Your task to perform on an android device: What's the news about the US dollar exchange rate? Image 0: 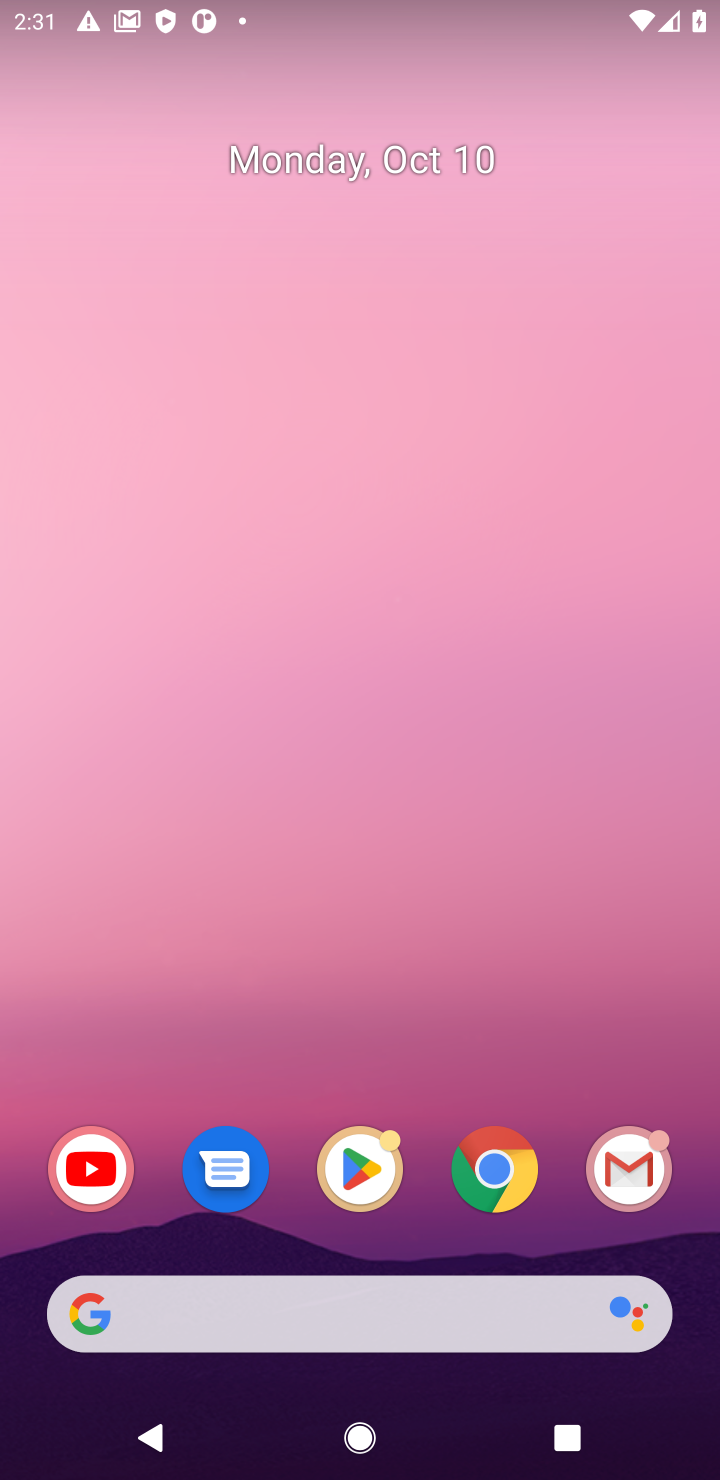
Step 0: drag from (311, 1135) to (380, 238)
Your task to perform on an android device: What's the news about the US dollar exchange rate? Image 1: 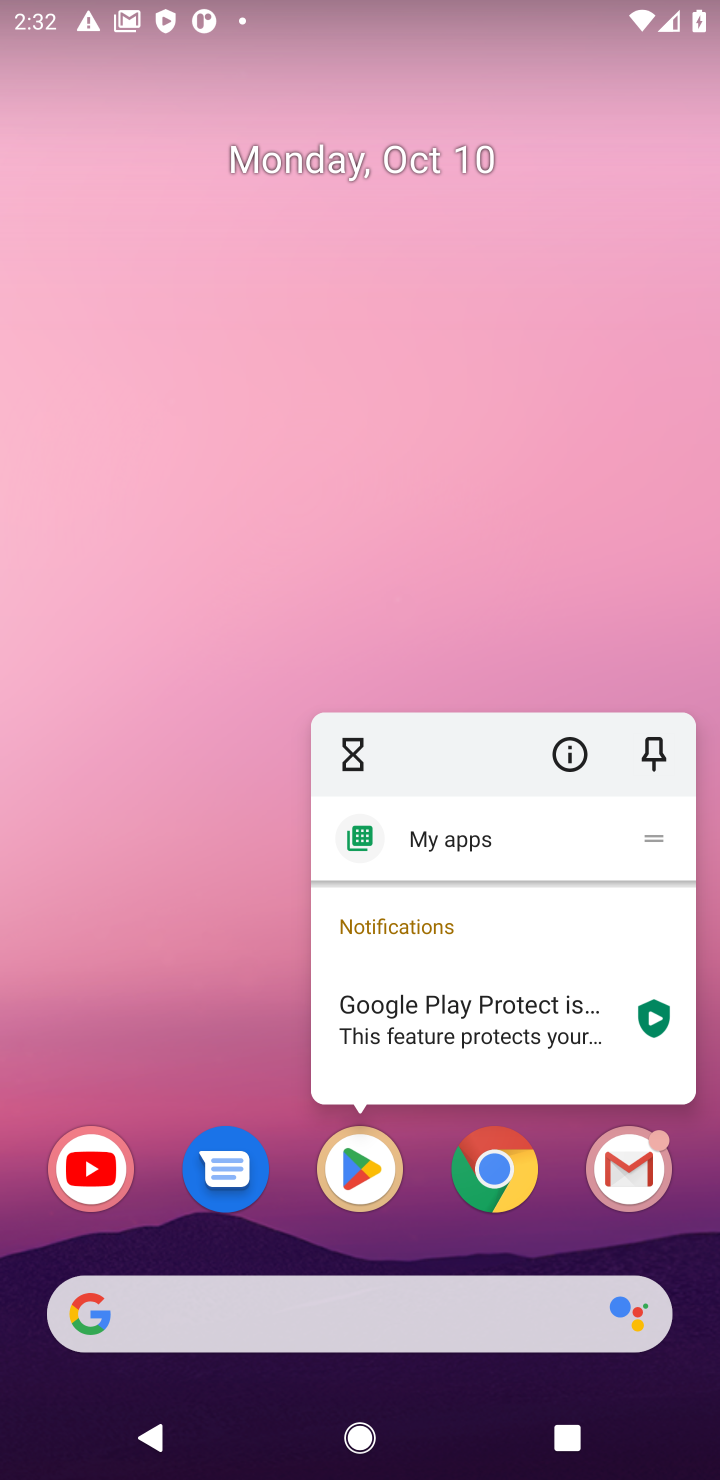
Step 1: click (555, 523)
Your task to perform on an android device: What's the news about the US dollar exchange rate? Image 2: 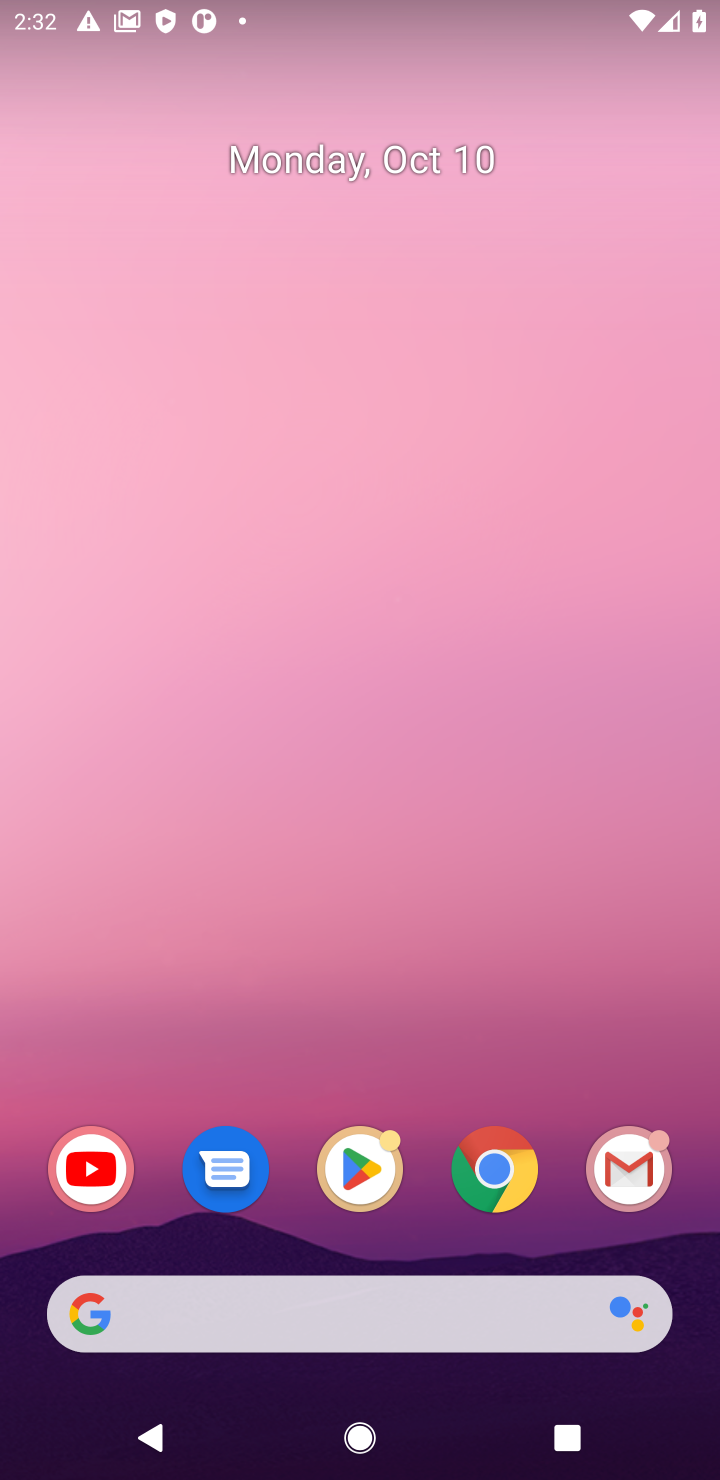
Step 2: drag from (204, 1146) to (184, 58)
Your task to perform on an android device: What's the news about the US dollar exchange rate? Image 3: 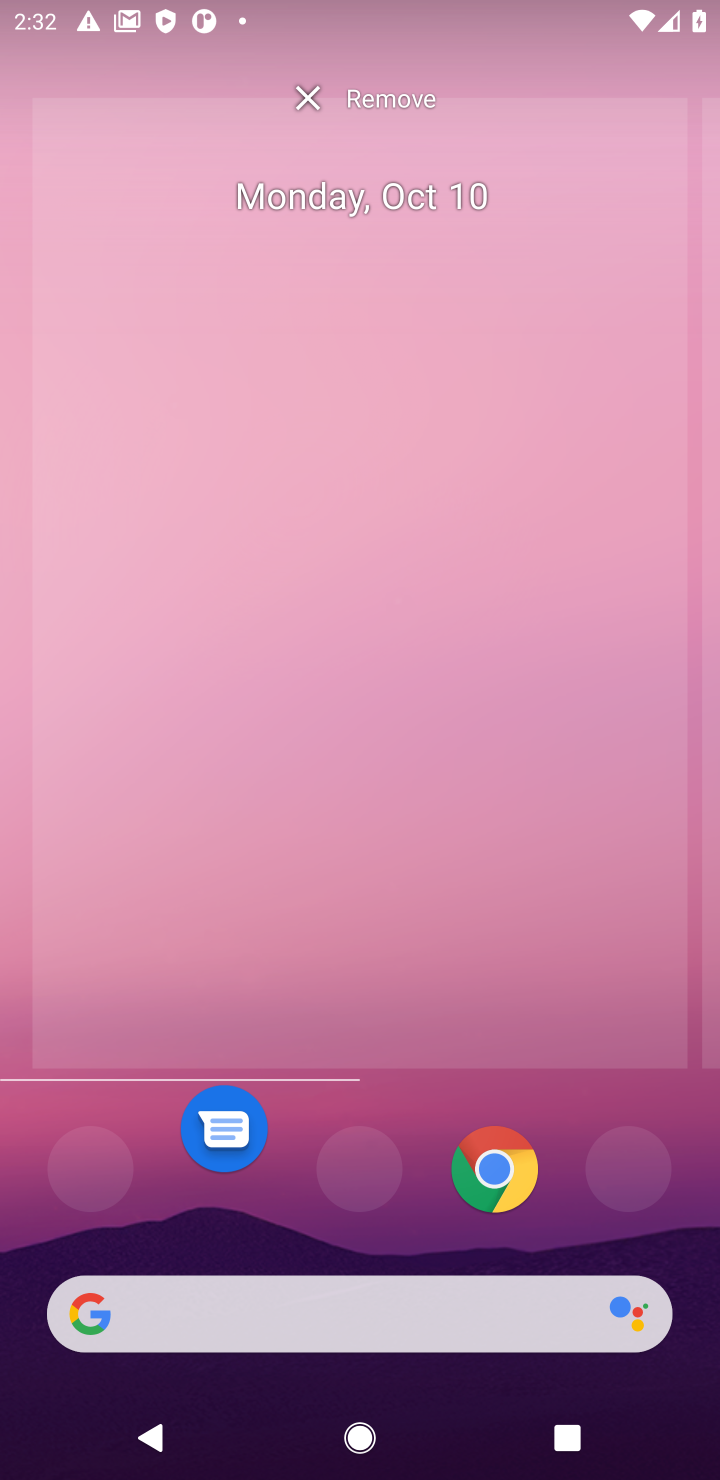
Step 3: click (427, 427)
Your task to perform on an android device: What's the news about the US dollar exchange rate? Image 4: 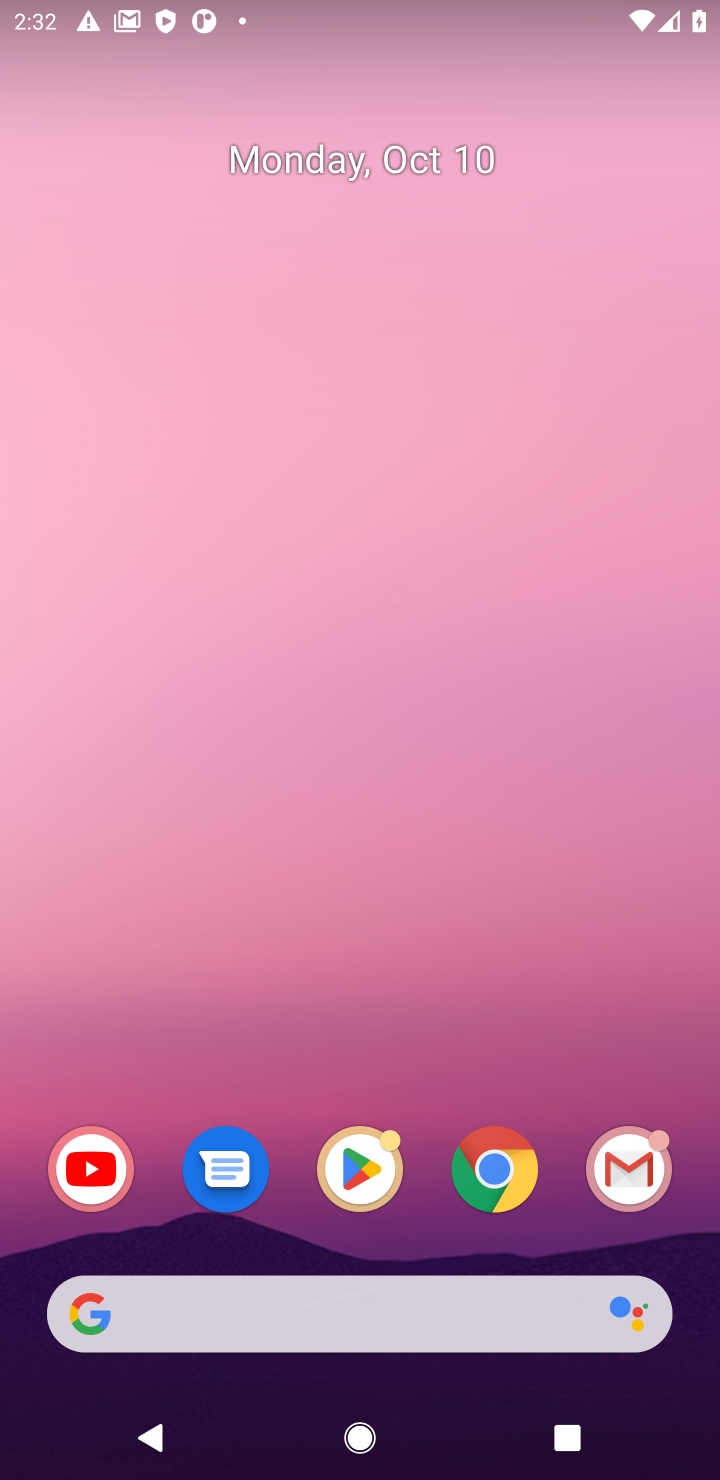
Step 4: click (231, 629)
Your task to perform on an android device: What's the news about the US dollar exchange rate? Image 5: 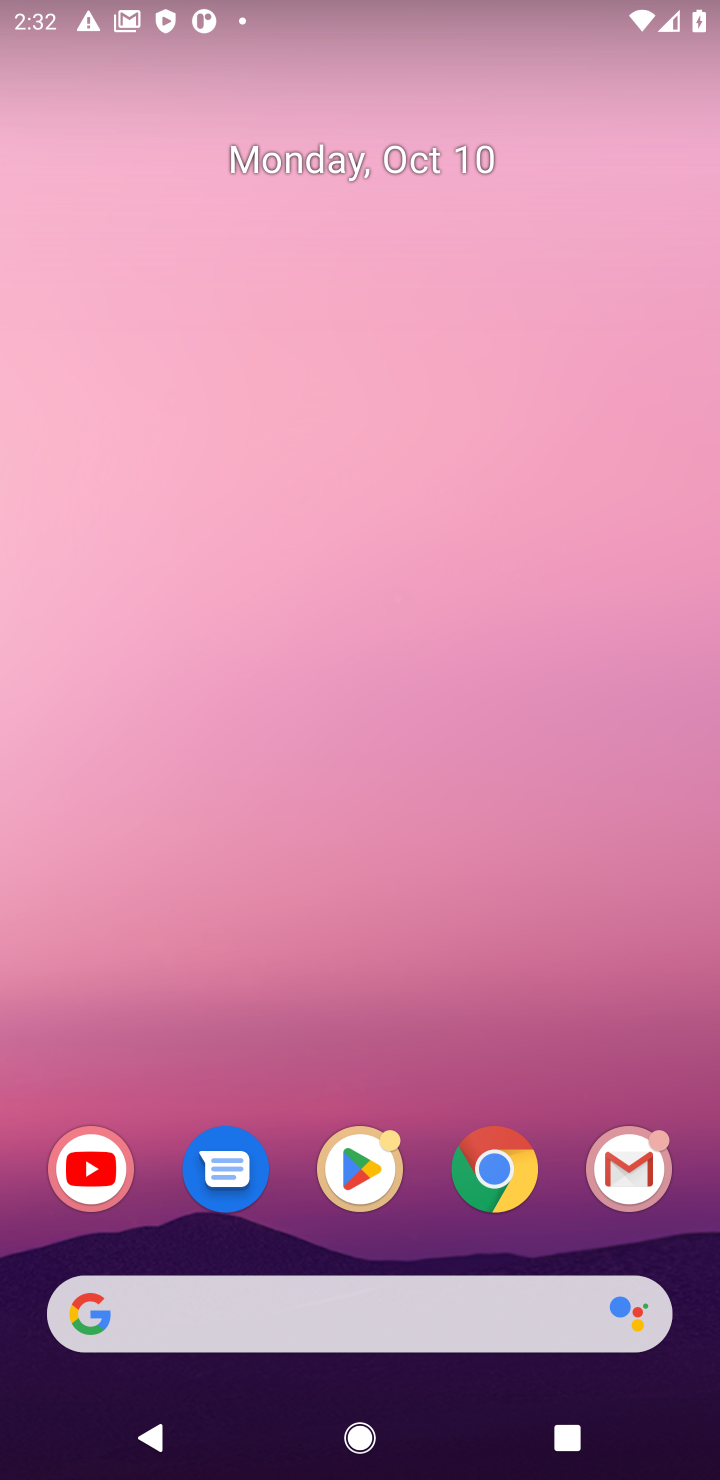
Step 5: drag from (346, 1219) to (346, 231)
Your task to perform on an android device: What's the news about the US dollar exchange rate? Image 6: 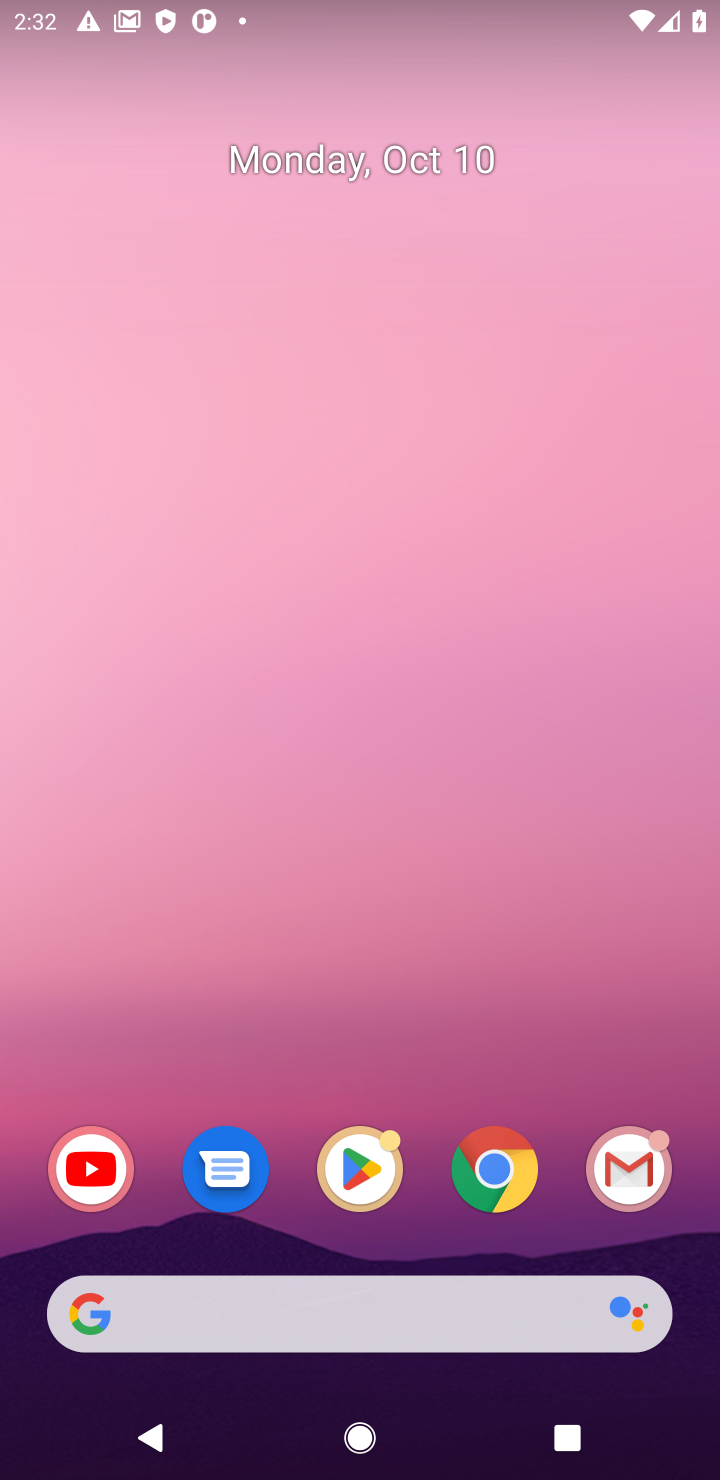
Step 6: click (206, 948)
Your task to perform on an android device: What's the news about the US dollar exchange rate? Image 7: 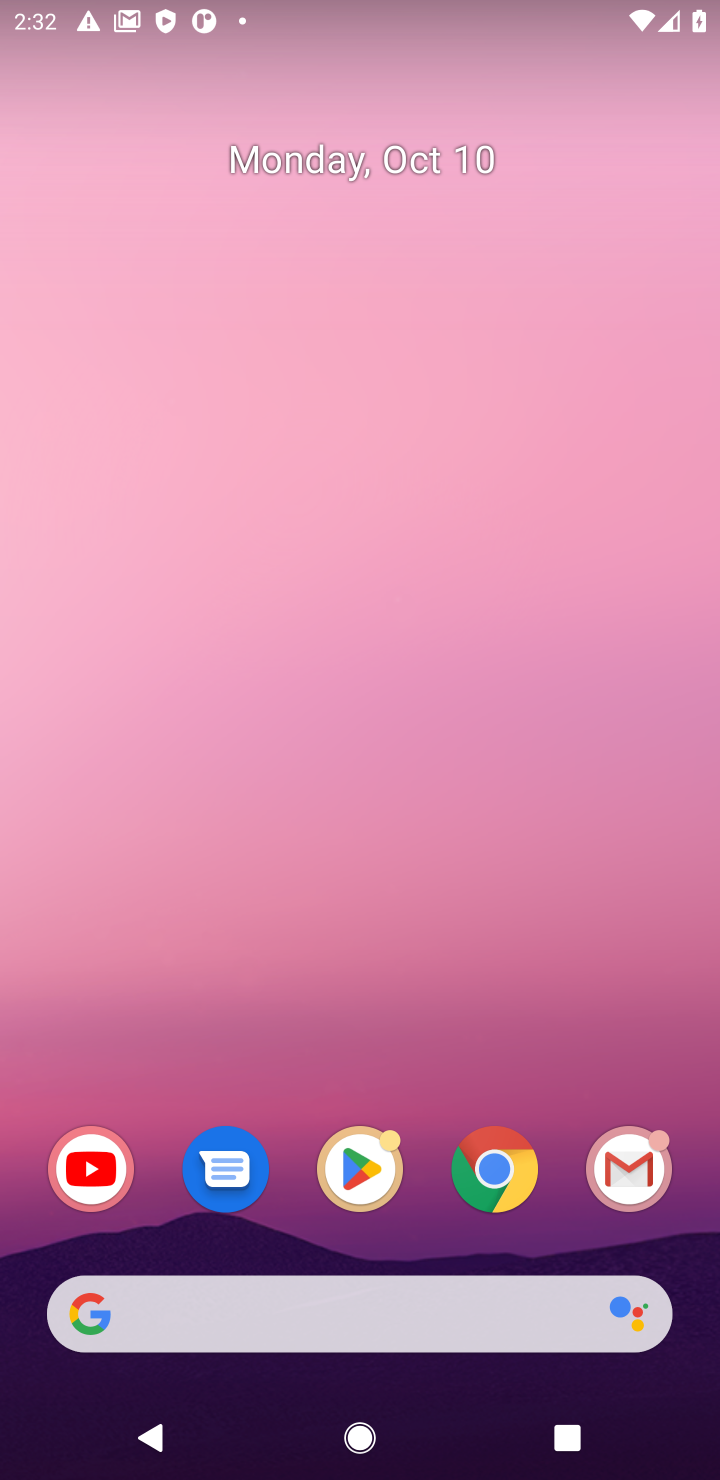
Step 7: drag from (300, 1077) to (300, 22)
Your task to perform on an android device: What's the news about the US dollar exchange rate? Image 8: 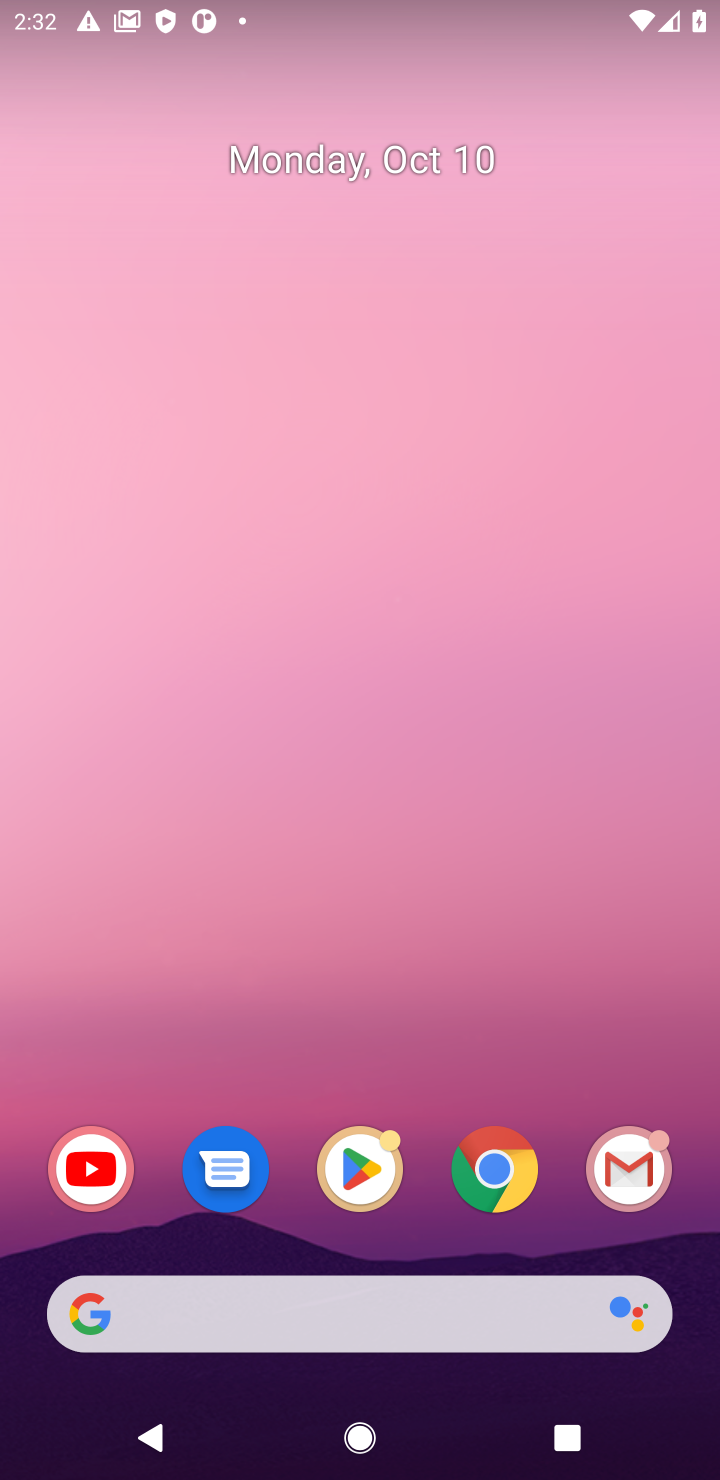
Step 8: click (361, 419)
Your task to perform on an android device: What's the news about the US dollar exchange rate? Image 9: 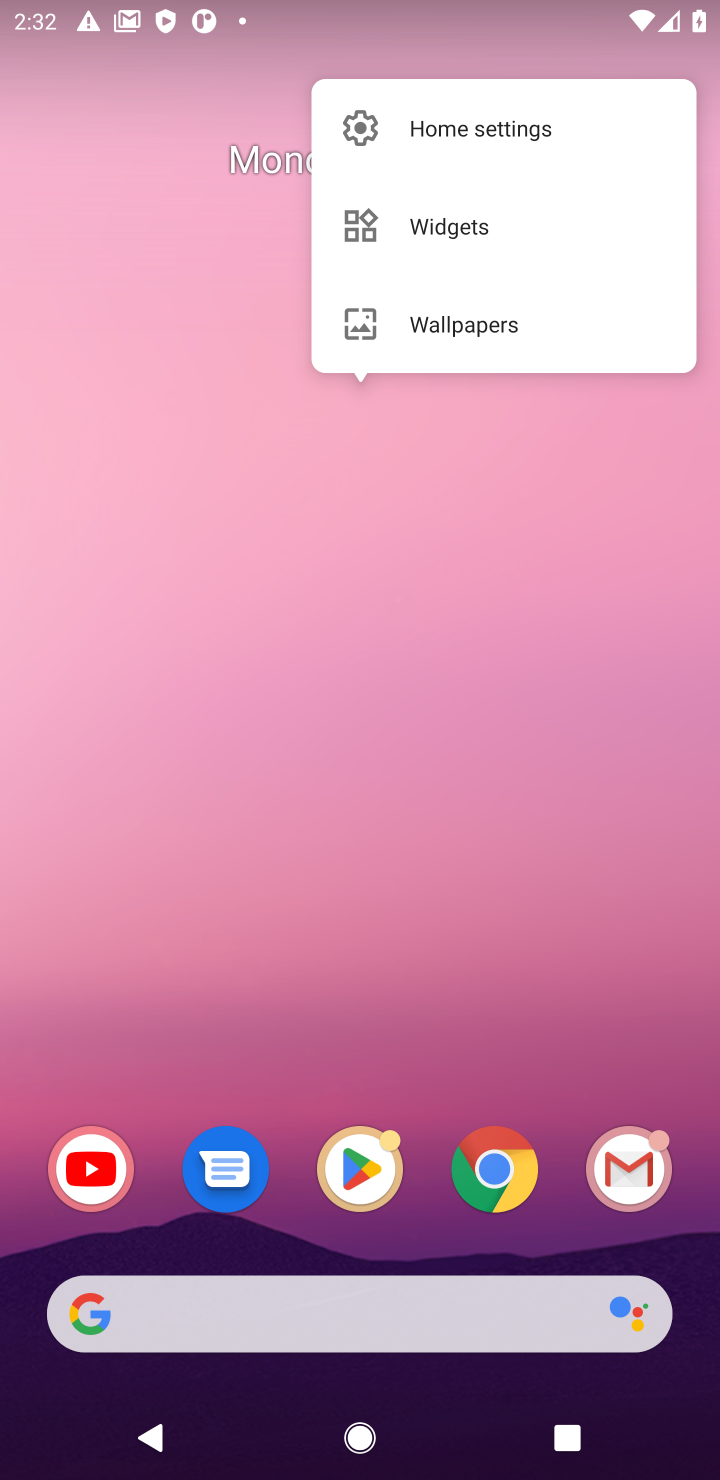
Step 9: click (517, 818)
Your task to perform on an android device: What's the news about the US dollar exchange rate? Image 10: 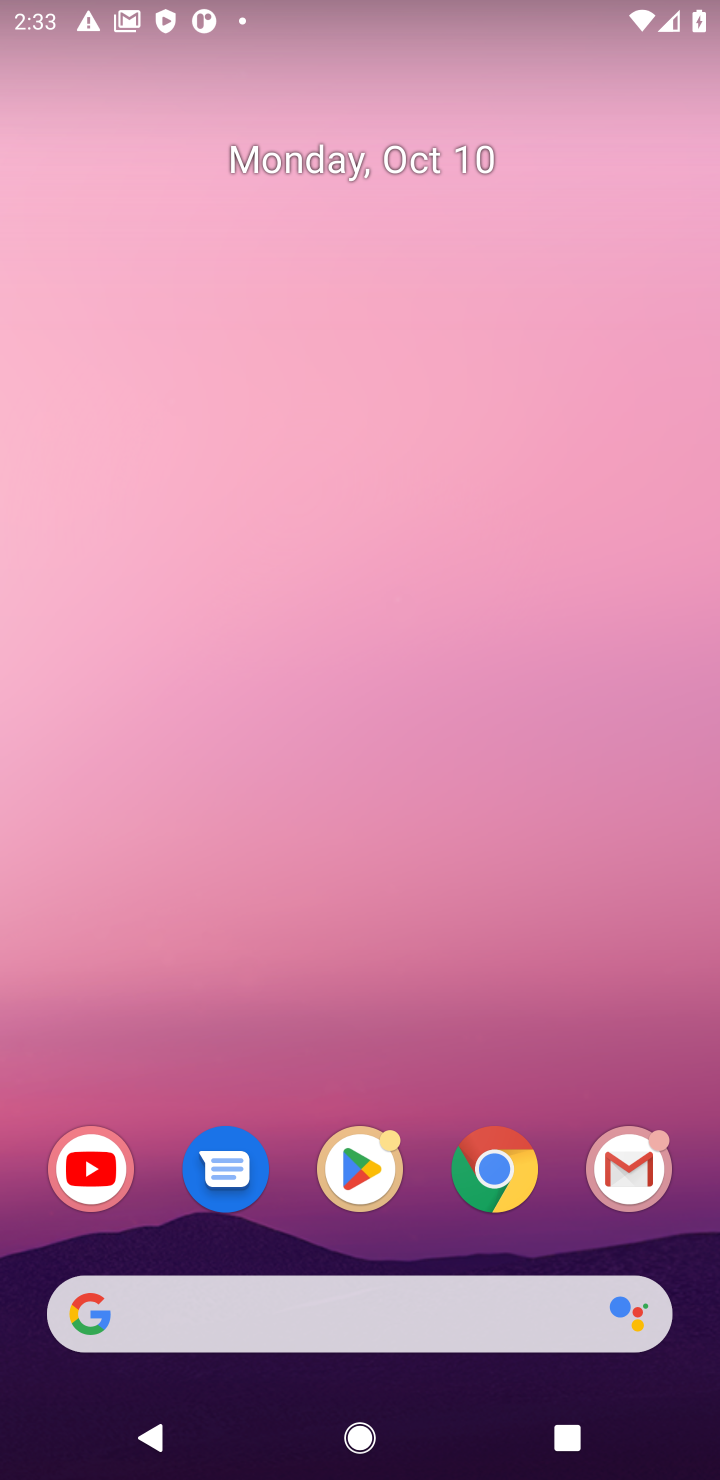
Step 10: drag from (424, 946) to (443, 1)
Your task to perform on an android device: What's the news about the US dollar exchange rate? Image 11: 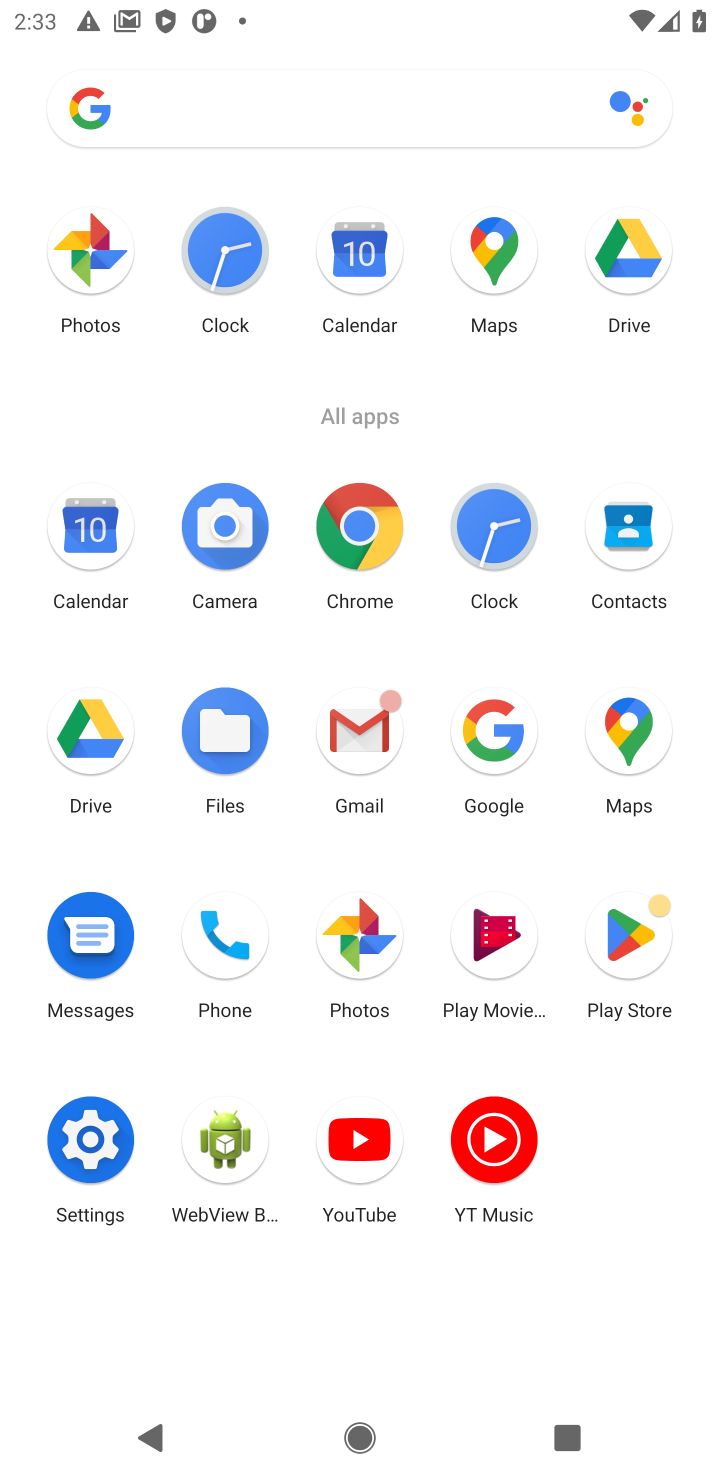
Step 11: click (363, 505)
Your task to perform on an android device: What's the news about the US dollar exchange rate? Image 12: 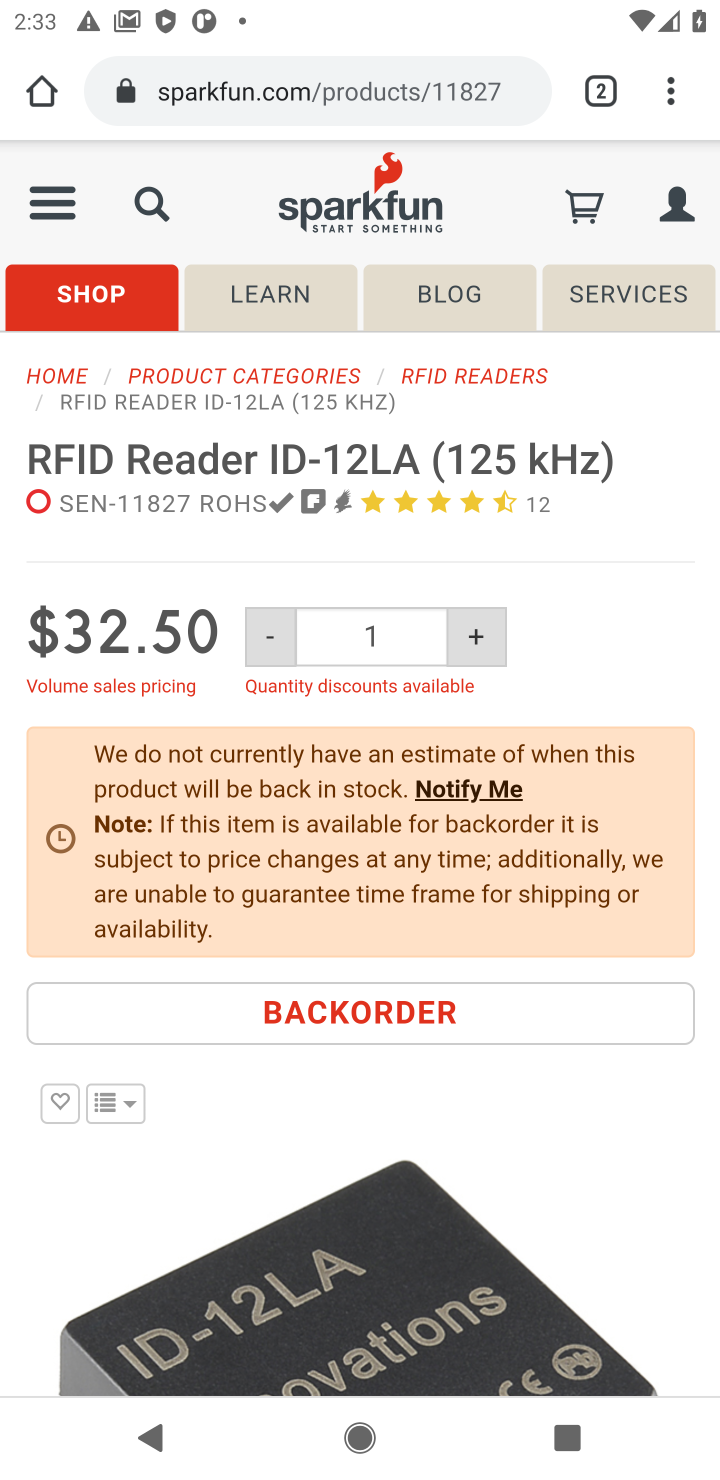
Step 12: click (340, 90)
Your task to perform on an android device: What's the news about the US dollar exchange rate? Image 13: 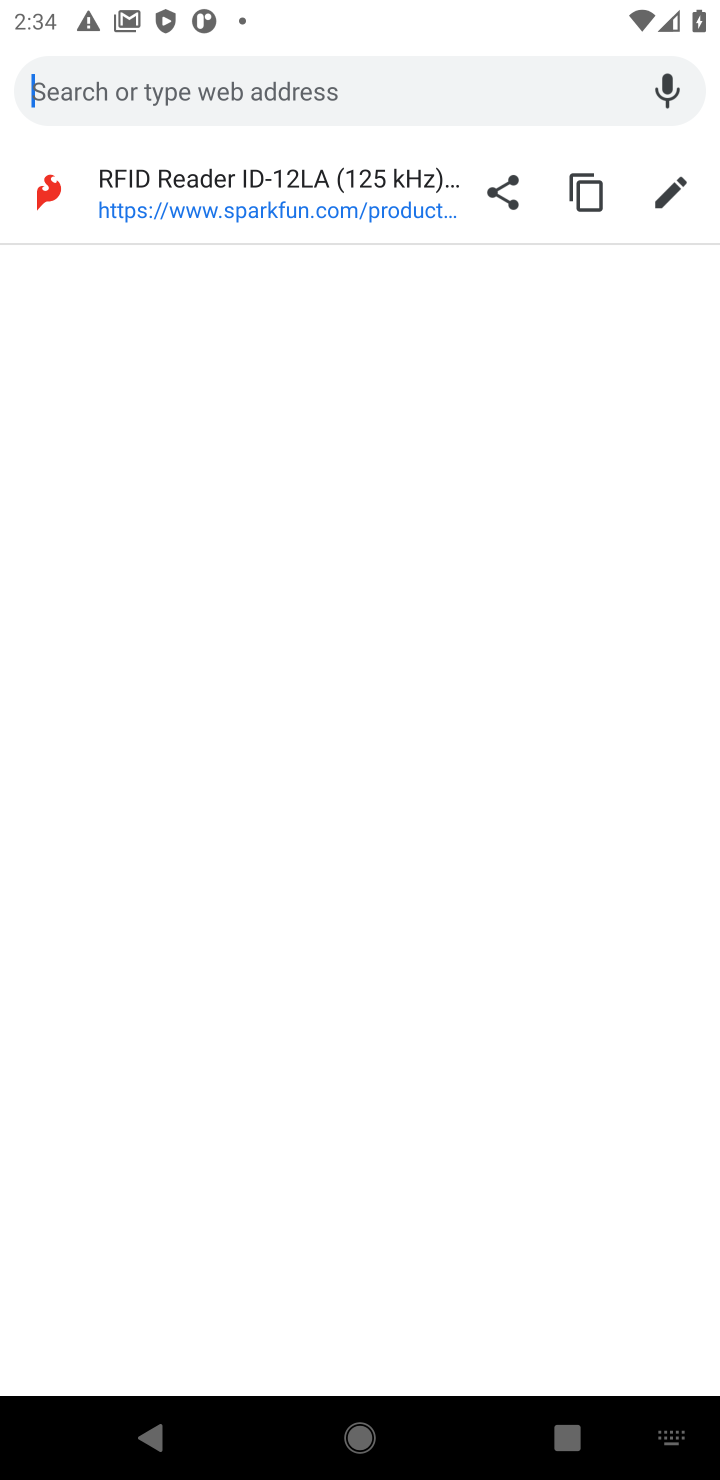
Step 13: type "What's the news about the US dollar exchange rate?"
Your task to perform on an android device: What's the news about the US dollar exchange rate? Image 14: 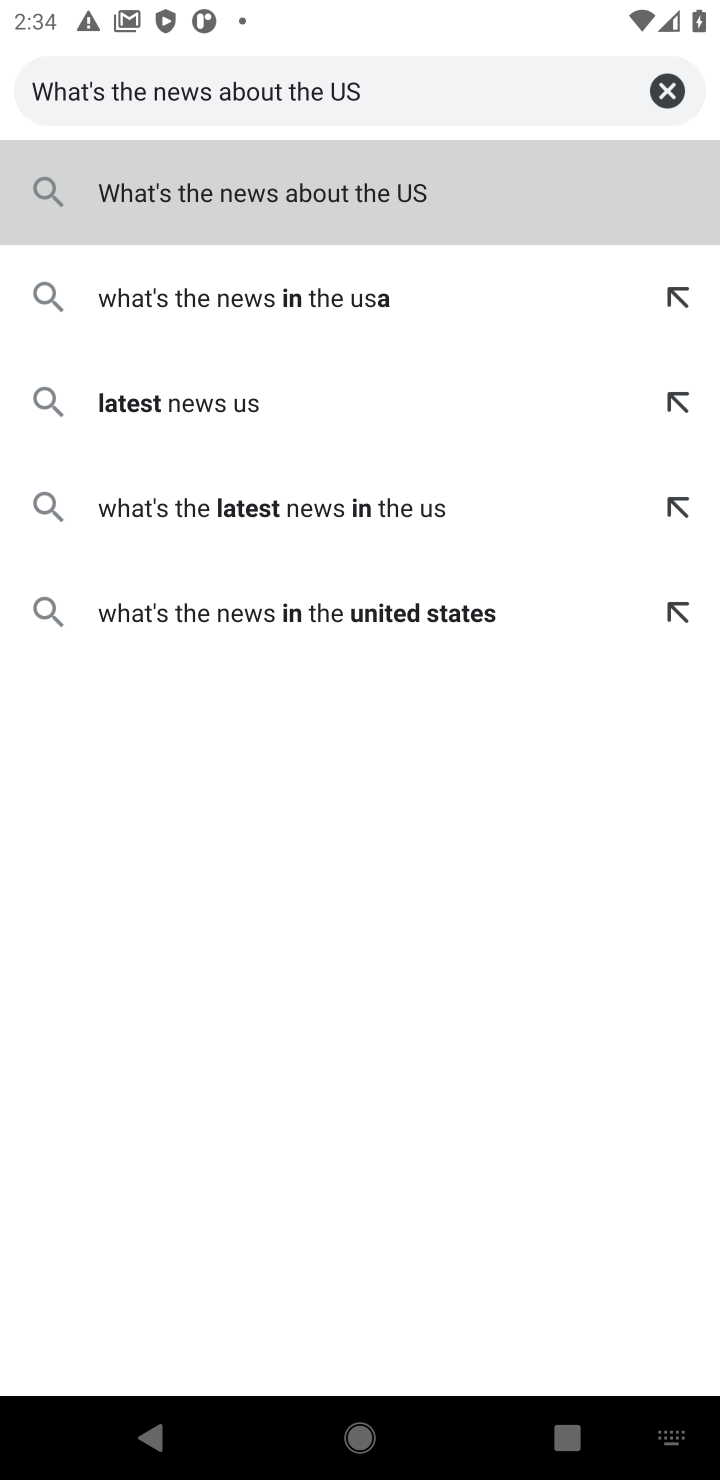
Step 14: press enter
Your task to perform on an android device: What's the news about the US dollar exchange rate? Image 15: 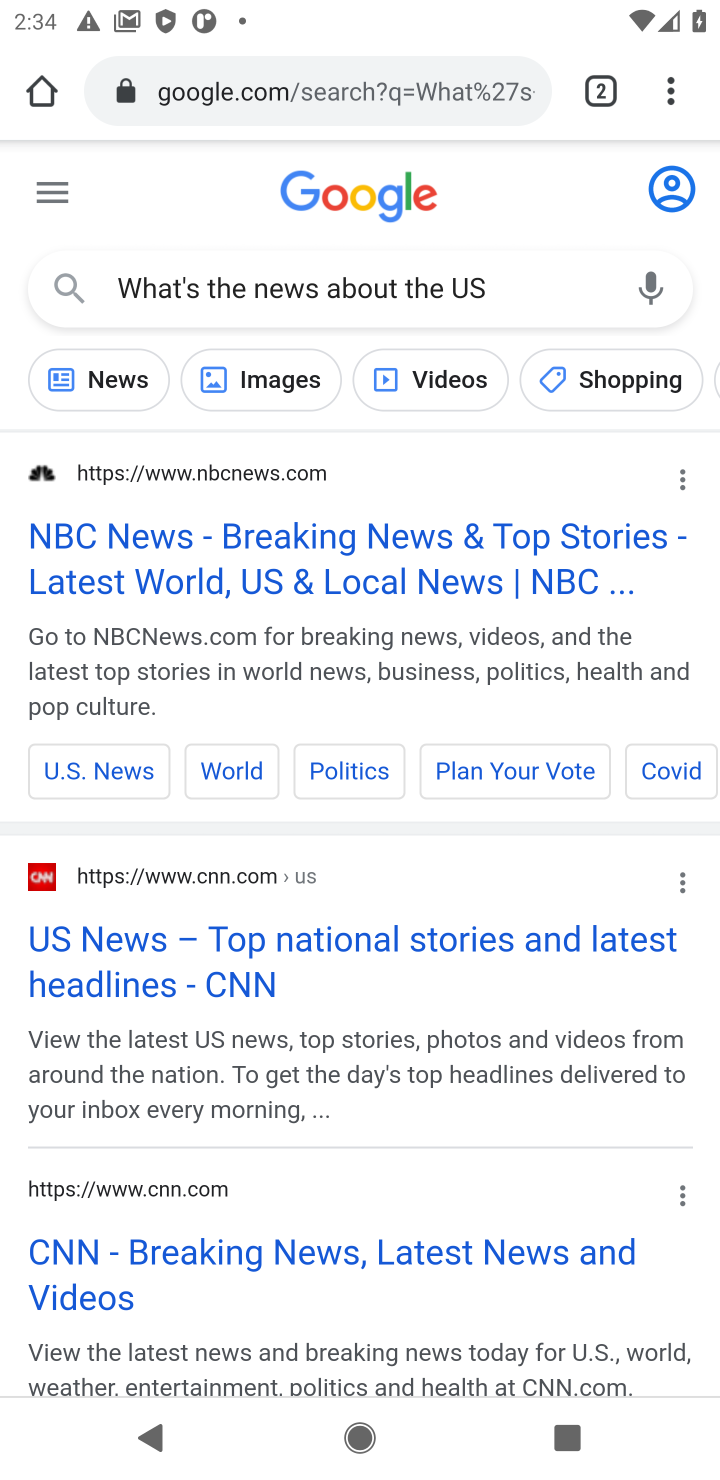
Step 15: task complete